Your task to perform on an android device: stop showing notifications on the lock screen Image 0: 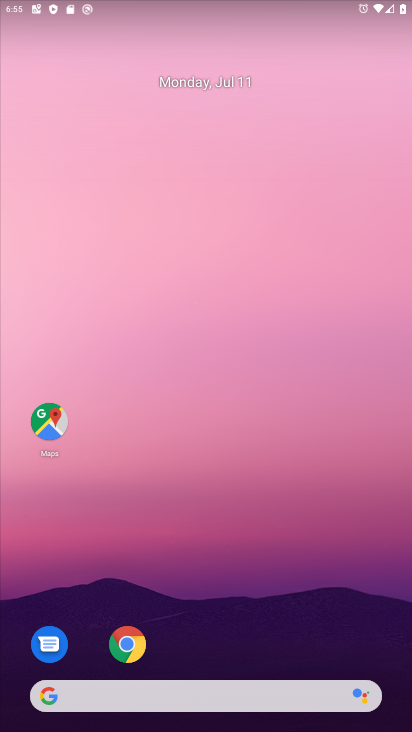
Step 0: drag from (317, 710) to (298, 8)
Your task to perform on an android device: stop showing notifications on the lock screen Image 1: 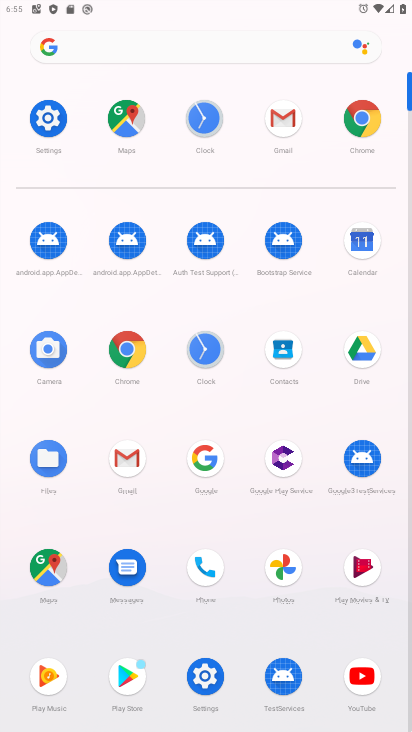
Step 1: click (58, 119)
Your task to perform on an android device: stop showing notifications on the lock screen Image 2: 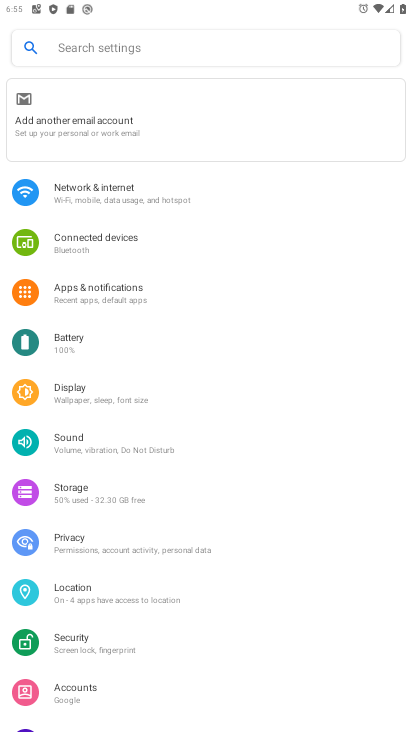
Step 2: click (114, 295)
Your task to perform on an android device: stop showing notifications on the lock screen Image 3: 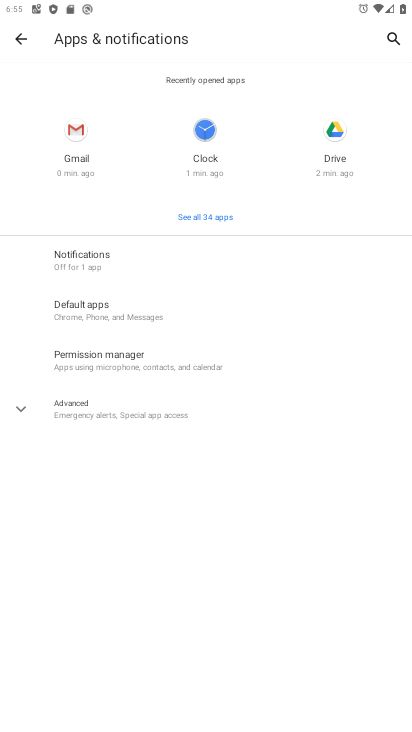
Step 3: click (89, 245)
Your task to perform on an android device: stop showing notifications on the lock screen Image 4: 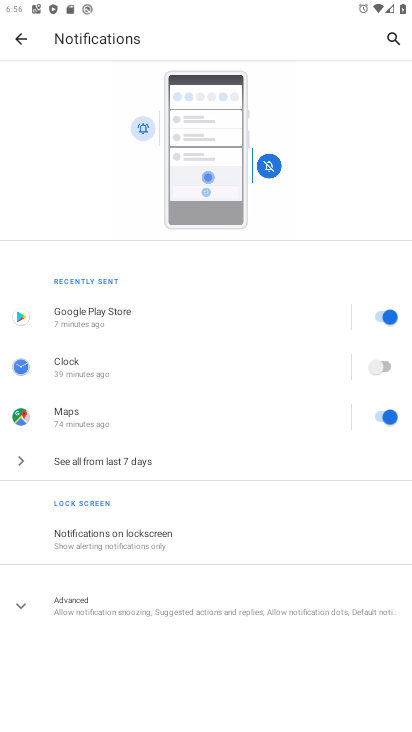
Step 4: click (156, 545)
Your task to perform on an android device: stop showing notifications on the lock screen Image 5: 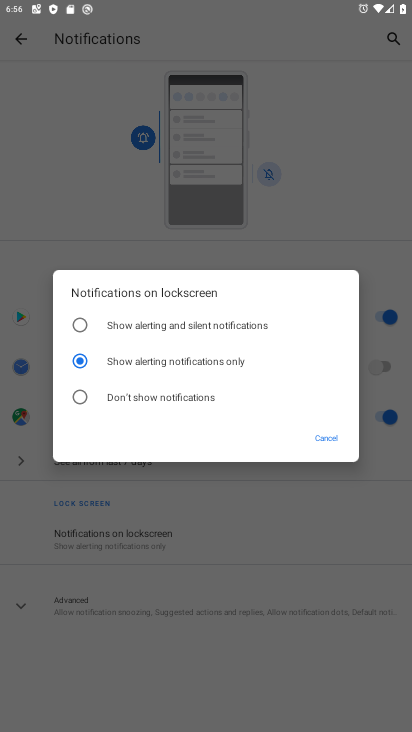
Step 5: click (84, 322)
Your task to perform on an android device: stop showing notifications on the lock screen Image 6: 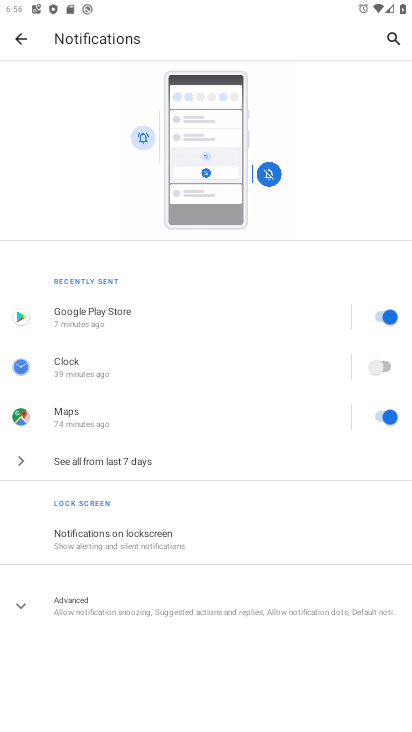
Step 6: task complete